Your task to perform on an android device: Go to sound settings Image 0: 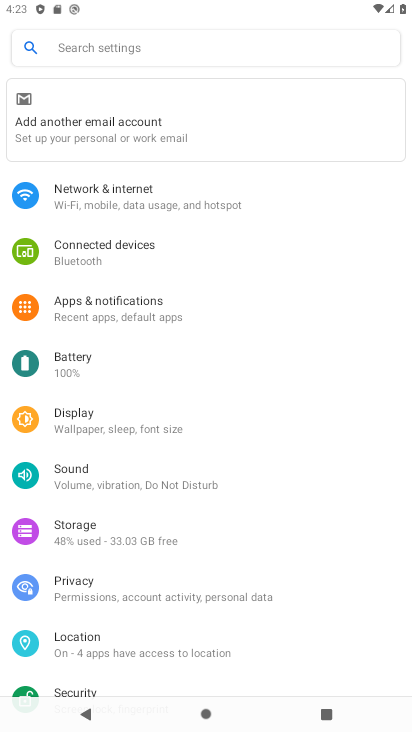
Step 0: click (146, 480)
Your task to perform on an android device: Go to sound settings Image 1: 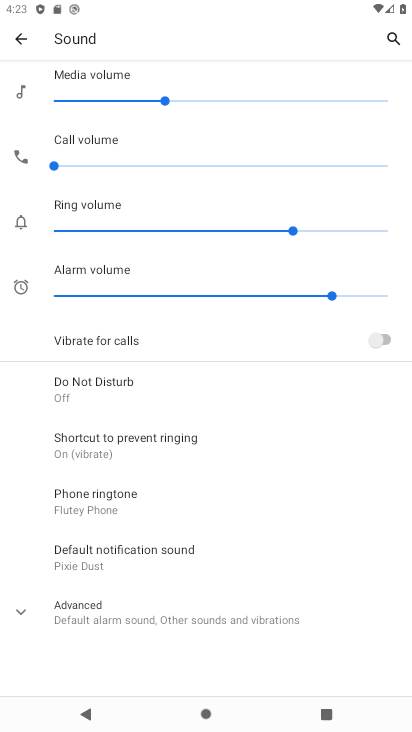
Step 1: task complete